Your task to perform on an android device: toggle data saver in the chrome app Image 0: 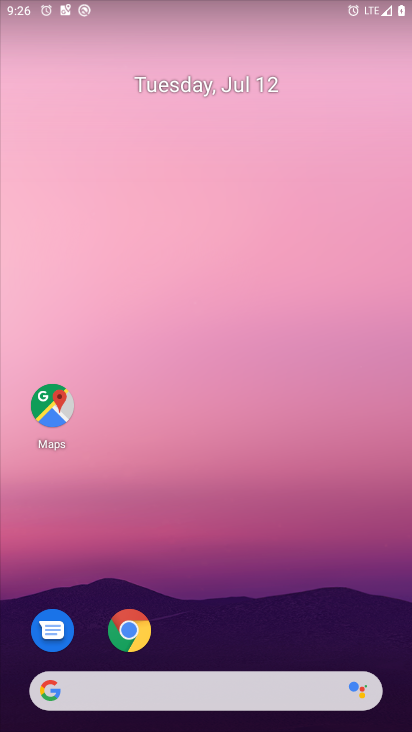
Step 0: press home button
Your task to perform on an android device: toggle data saver in the chrome app Image 1: 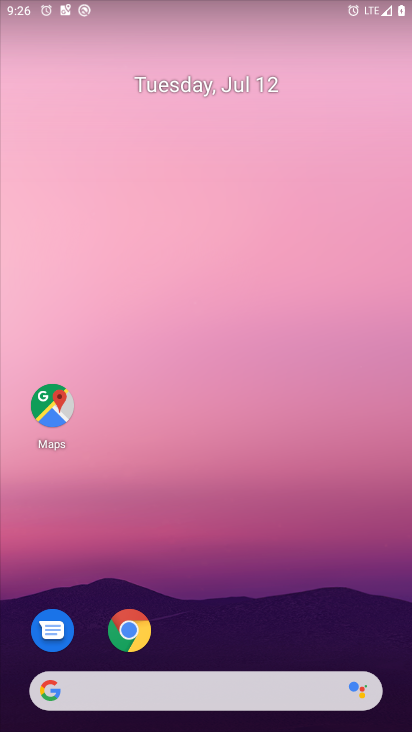
Step 1: click (140, 637)
Your task to perform on an android device: toggle data saver in the chrome app Image 2: 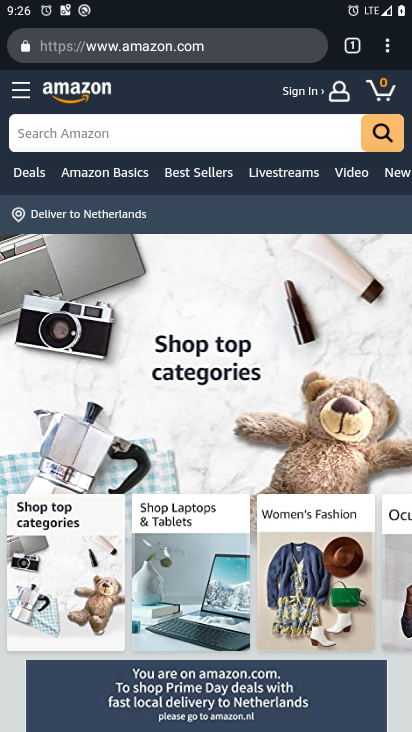
Step 2: drag from (392, 49) to (220, 548)
Your task to perform on an android device: toggle data saver in the chrome app Image 3: 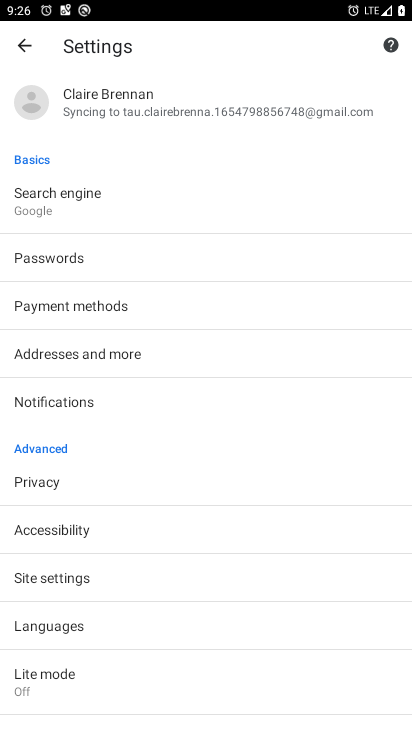
Step 3: click (44, 676)
Your task to perform on an android device: toggle data saver in the chrome app Image 4: 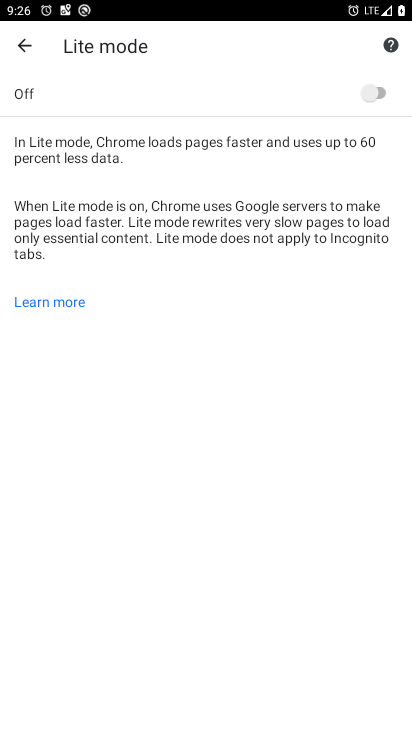
Step 4: click (375, 89)
Your task to perform on an android device: toggle data saver in the chrome app Image 5: 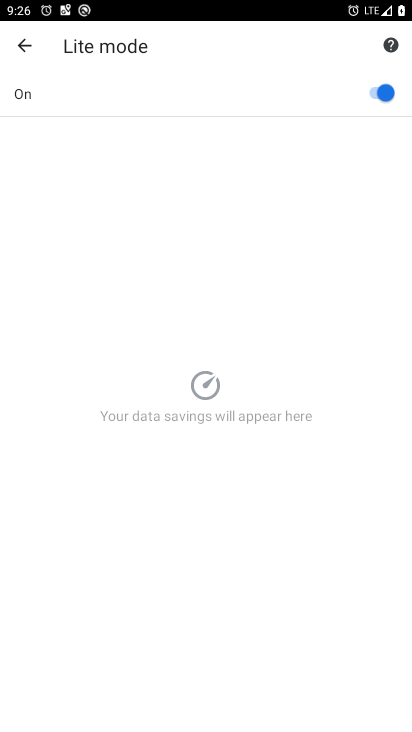
Step 5: task complete